Your task to perform on an android device: Search for the best rated book on Goodreads. Image 0: 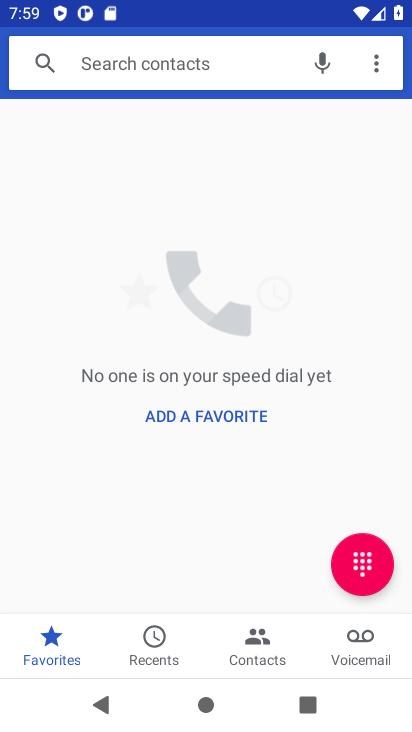
Step 0: press home button
Your task to perform on an android device: Search for the best rated book on Goodreads. Image 1: 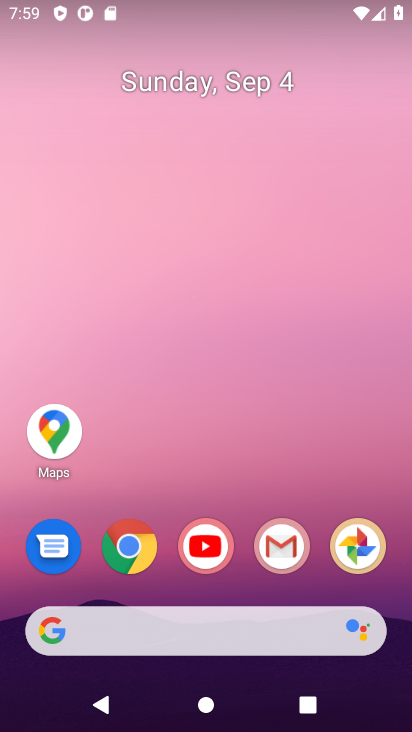
Step 1: click (131, 549)
Your task to perform on an android device: Search for the best rated book on Goodreads. Image 2: 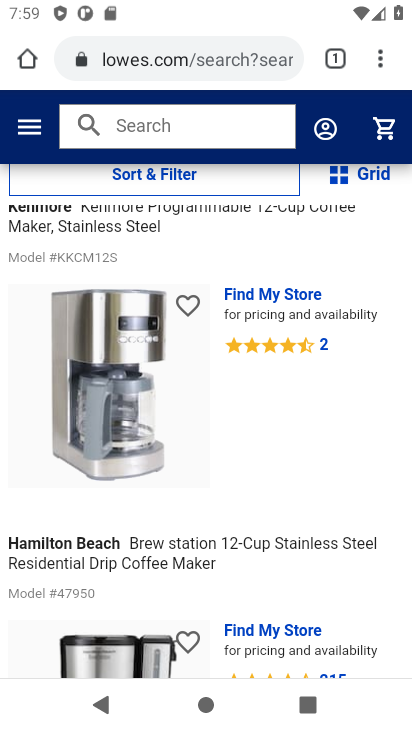
Step 2: click (136, 65)
Your task to perform on an android device: Search for the best rated book on Goodreads. Image 3: 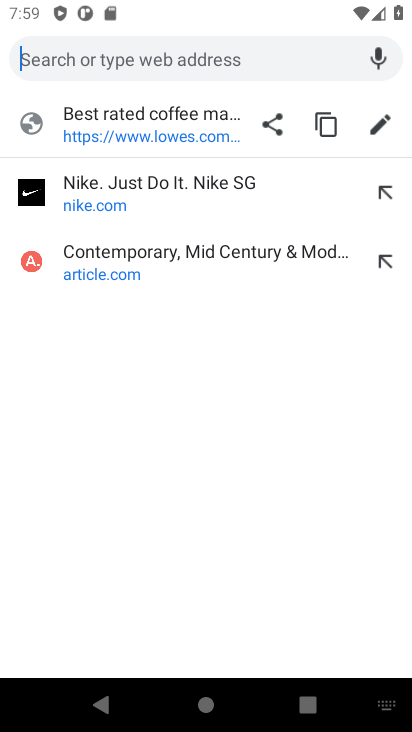
Step 3: type " Goodreads"
Your task to perform on an android device: Search for the best rated book on Goodreads. Image 4: 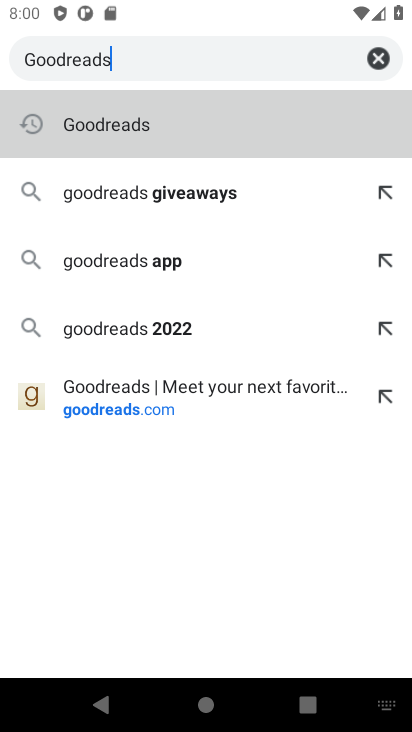
Step 4: click (122, 135)
Your task to perform on an android device: Search for the best rated book on Goodreads. Image 5: 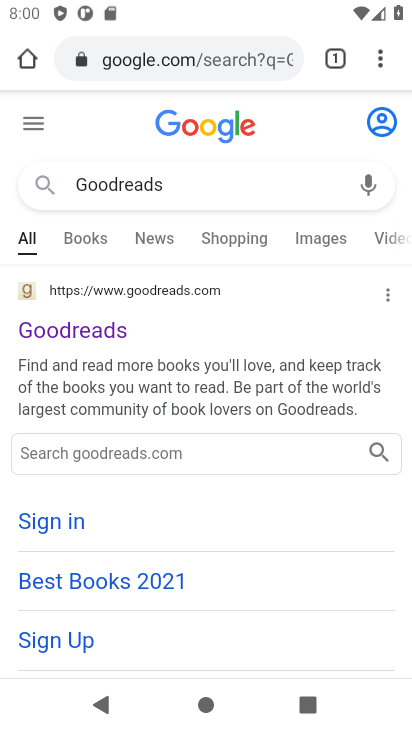
Step 5: click (62, 338)
Your task to perform on an android device: Search for the best rated book on Goodreads. Image 6: 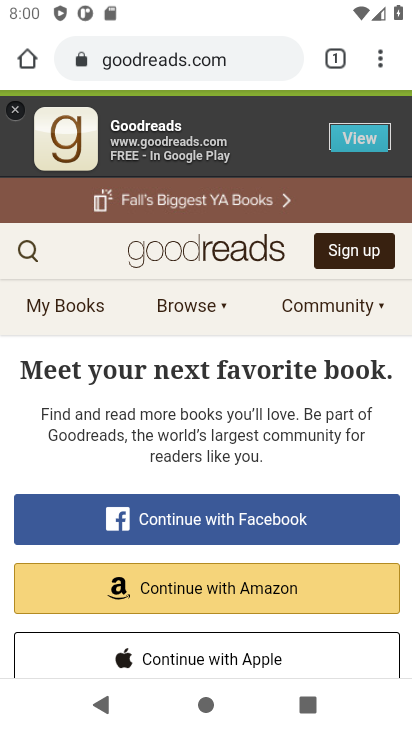
Step 6: click (29, 253)
Your task to perform on an android device: Search for the best rated book on Goodreads. Image 7: 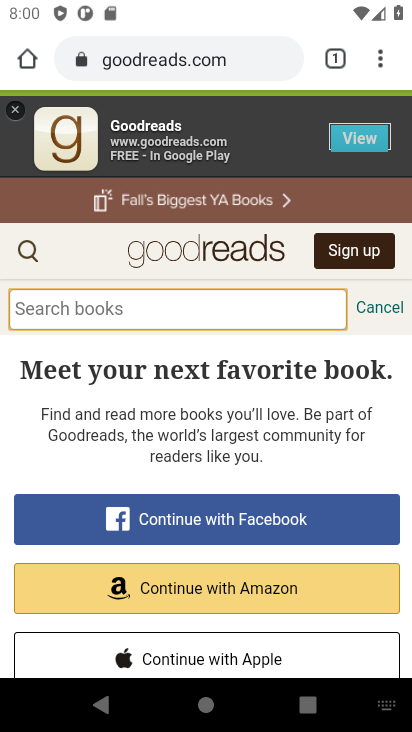
Step 7: type " best rated book"
Your task to perform on an android device: Search for the best rated book on Goodreads. Image 8: 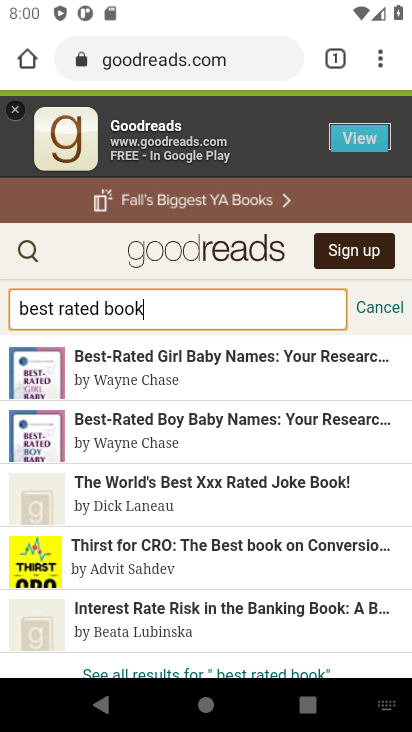
Step 8: task complete